Your task to perform on an android device: Search for seafood restaurants on Google Maps Image 0: 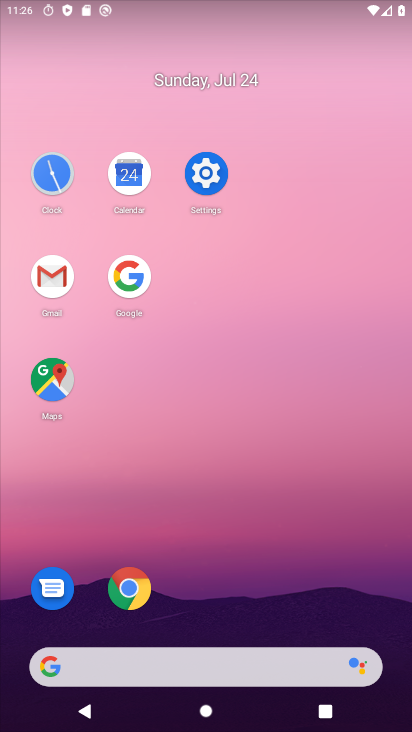
Step 0: click (60, 386)
Your task to perform on an android device: Search for seafood restaurants on Google Maps Image 1: 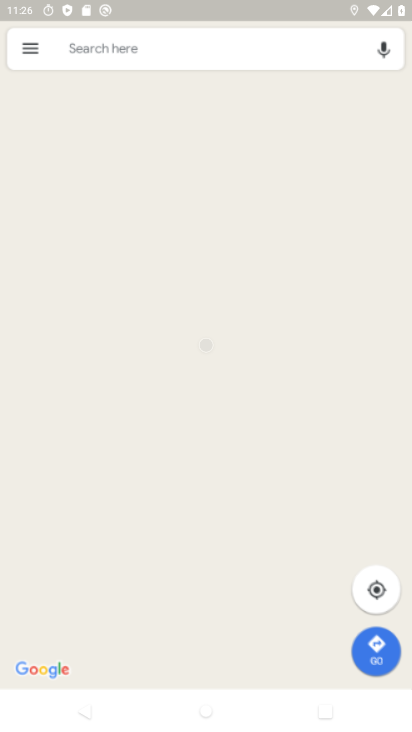
Step 1: click (188, 52)
Your task to perform on an android device: Search for seafood restaurants on Google Maps Image 2: 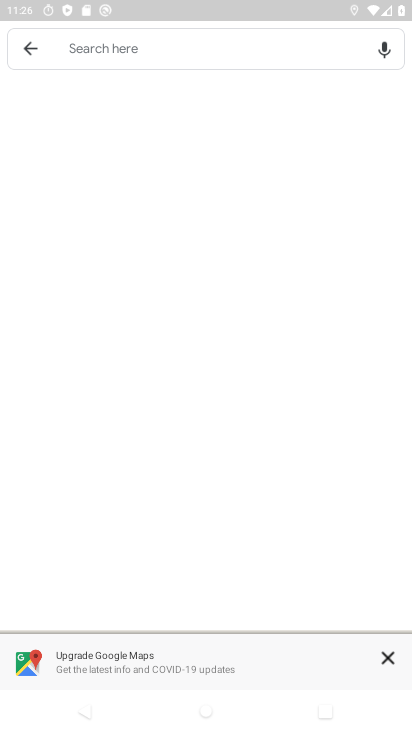
Step 2: click (188, 52)
Your task to perform on an android device: Search for seafood restaurants on Google Maps Image 3: 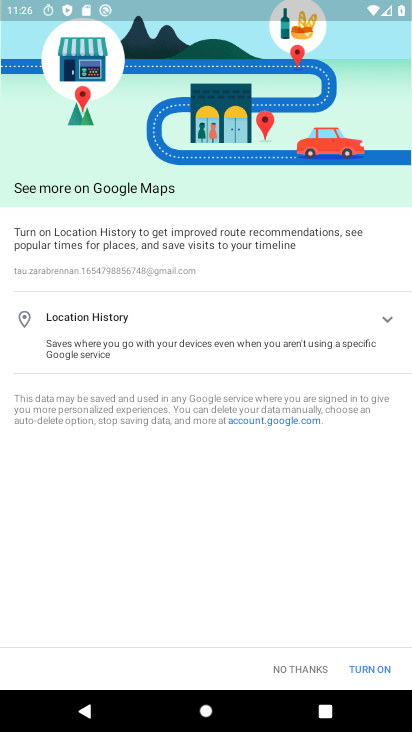
Step 3: click (366, 665)
Your task to perform on an android device: Search for seafood restaurants on Google Maps Image 4: 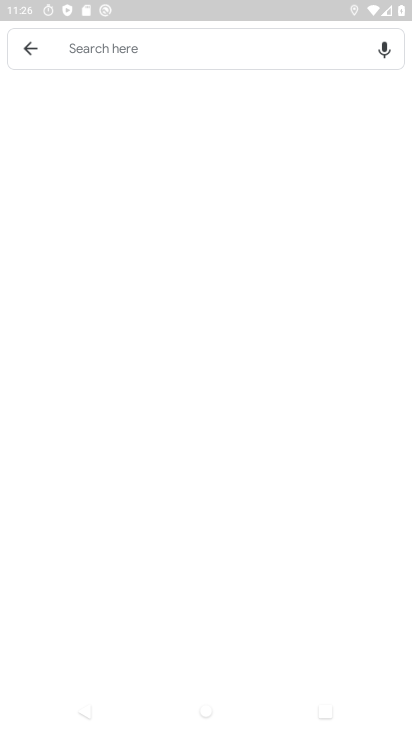
Step 4: click (364, 655)
Your task to perform on an android device: Search for seafood restaurants on Google Maps Image 5: 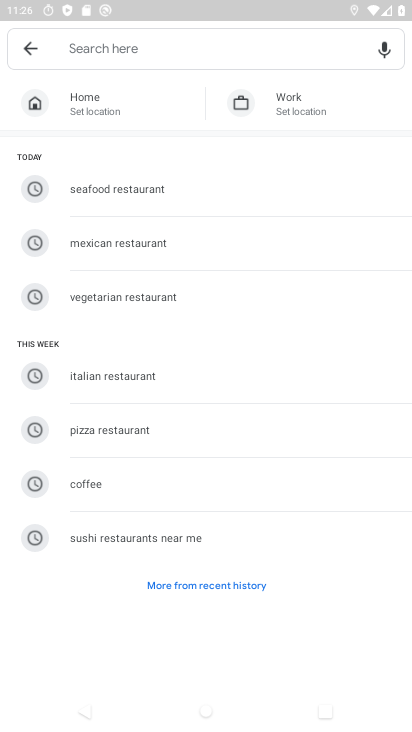
Step 5: click (166, 188)
Your task to perform on an android device: Search for seafood restaurants on Google Maps Image 6: 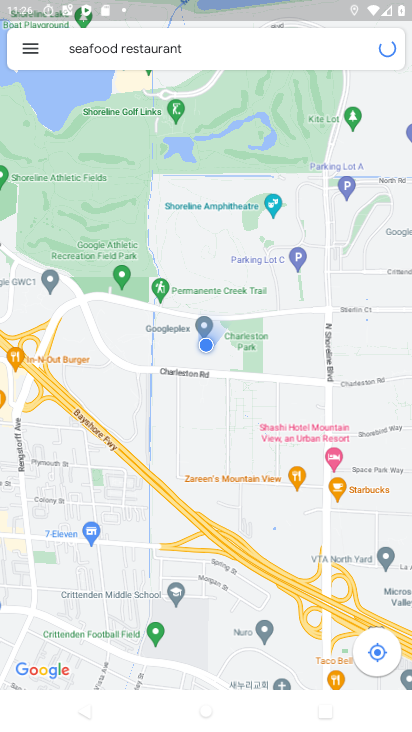
Step 6: task complete